Your task to perform on an android device: Go to Amazon Image 0: 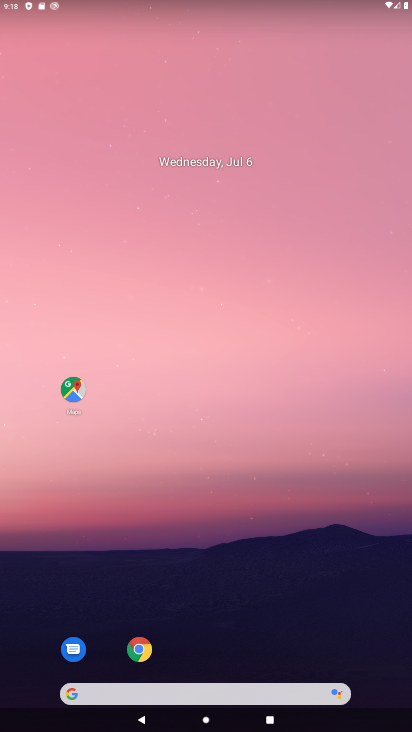
Step 0: press home button
Your task to perform on an android device: Go to Amazon Image 1: 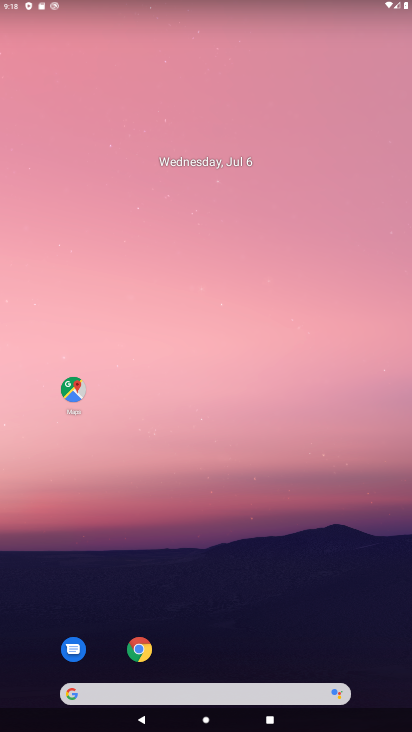
Step 1: drag from (223, 655) to (265, 92)
Your task to perform on an android device: Go to Amazon Image 2: 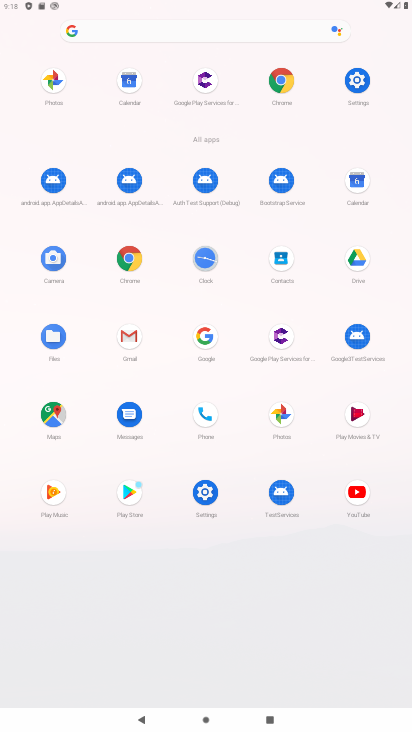
Step 2: click (126, 257)
Your task to perform on an android device: Go to Amazon Image 3: 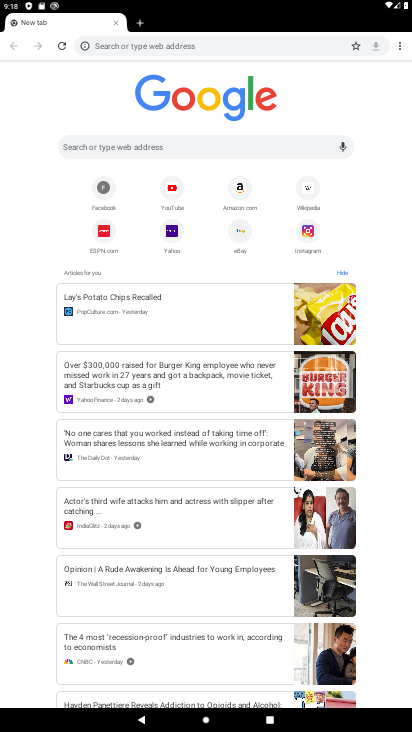
Step 3: click (238, 187)
Your task to perform on an android device: Go to Amazon Image 4: 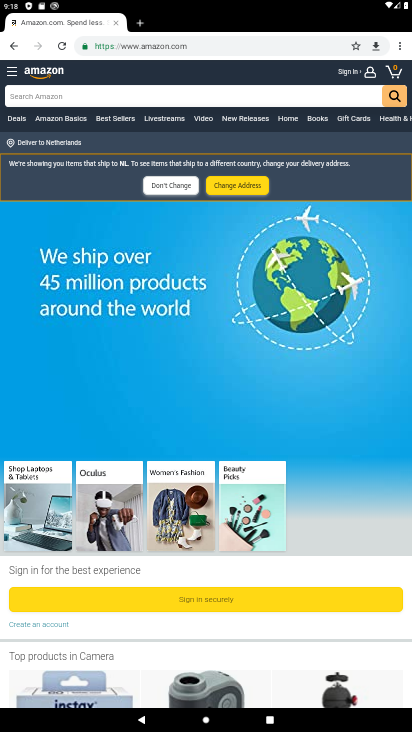
Step 4: task complete